Your task to perform on an android device: Go to Google maps Image 0: 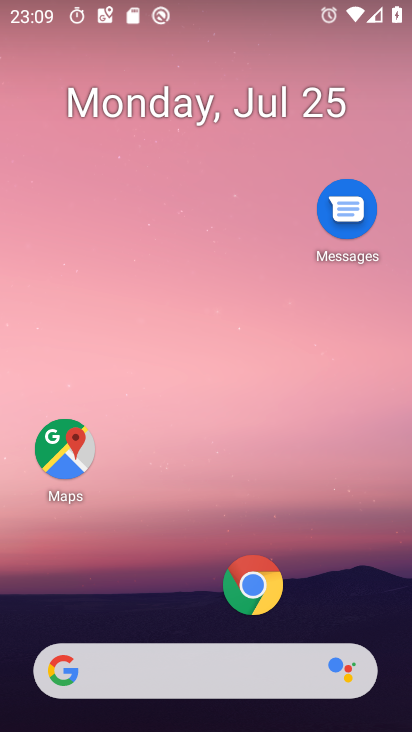
Step 0: press home button
Your task to perform on an android device: Go to Google maps Image 1: 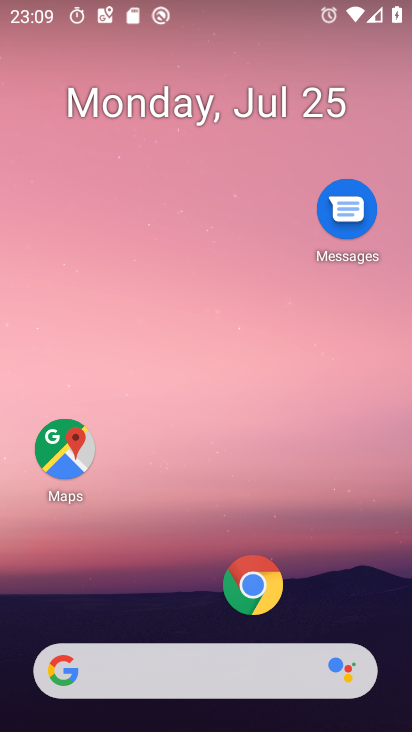
Step 1: click (70, 454)
Your task to perform on an android device: Go to Google maps Image 2: 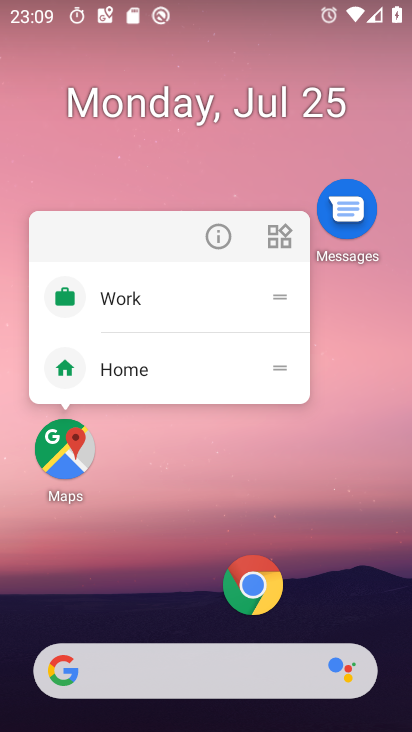
Step 2: click (66, 459)
Your task to perform on an android device: Go to Google maps Image 3: 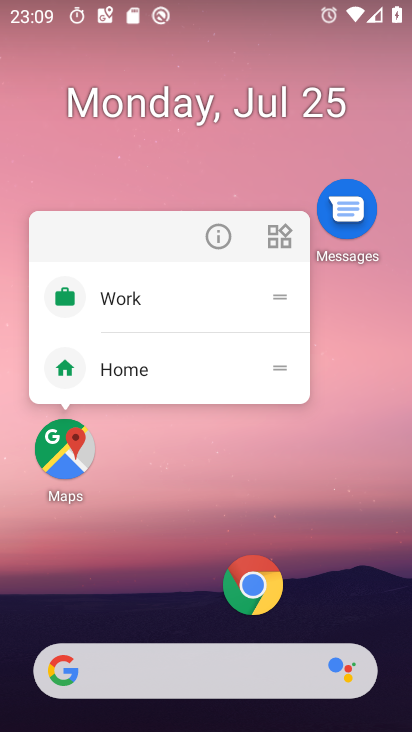
Step 3: click (66, 459)
Your task to perform on an android device: Go to Google maps Image 4: 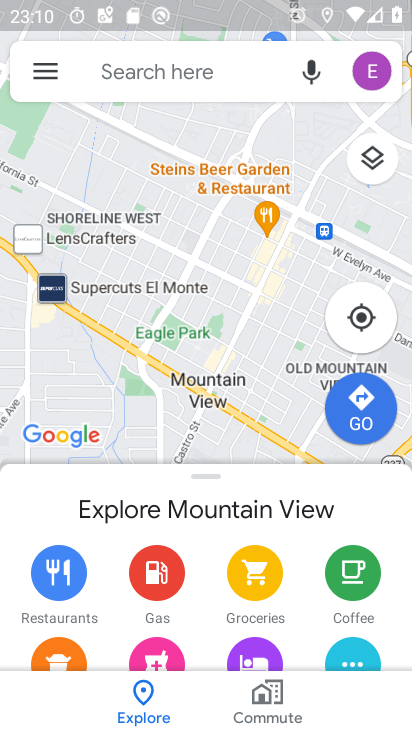
Step 4: task complete